Your task to perform on an android device: turn off picture-in-picture Image 0: 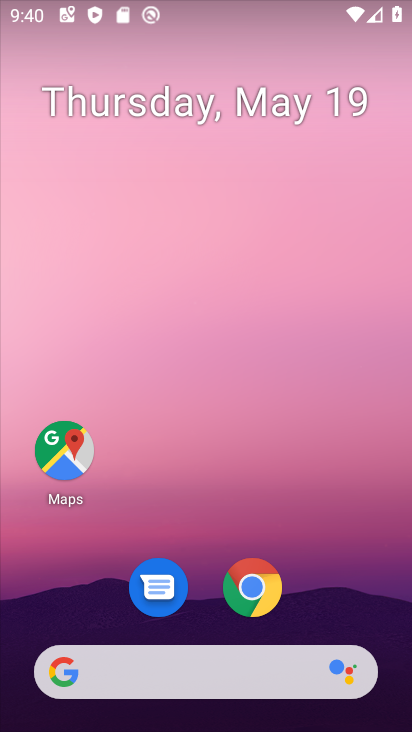
Step 0: click (255, 595)
Your task to perform on an android device: turn off picture-in-picture Image 1: 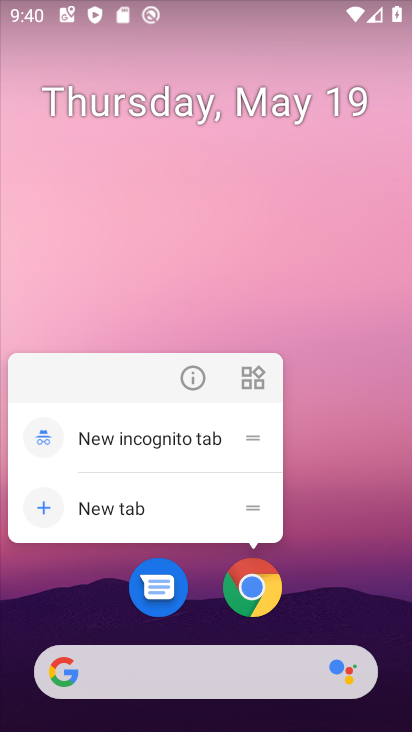
Step 1: click (193, 383)
Your task to perform on an android device: turn off picture-in-picture Image 2: 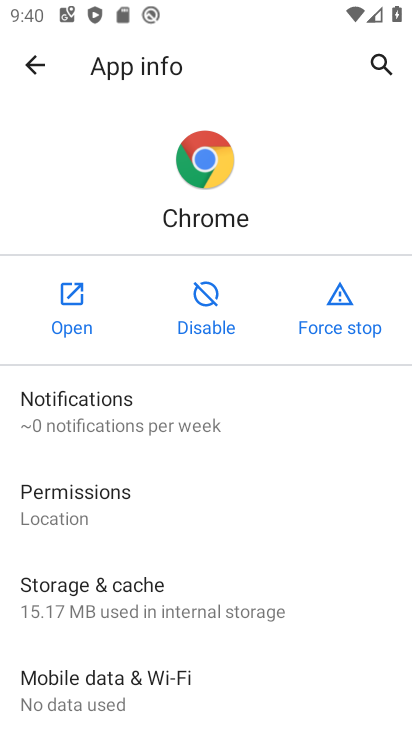
Step 2: drag from (215, 656) to (243, 0)
Your task to perform on an android device: turn off picture-in-picture Image 3: 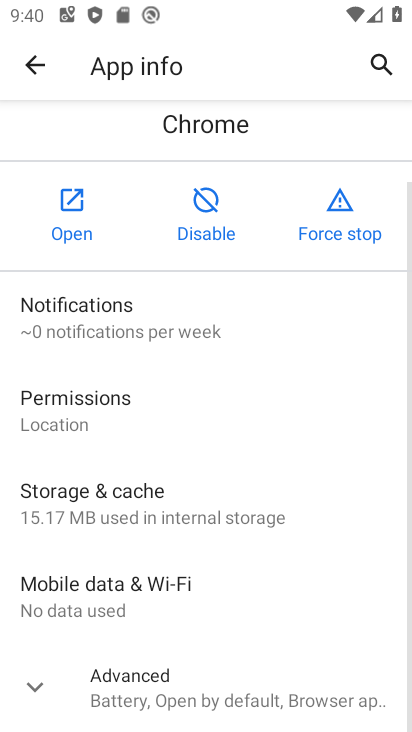
Step 3: drag from (165, 557) to (157, 218)
Your task to perform on an android device: turn off picture-in-picture Image 4: 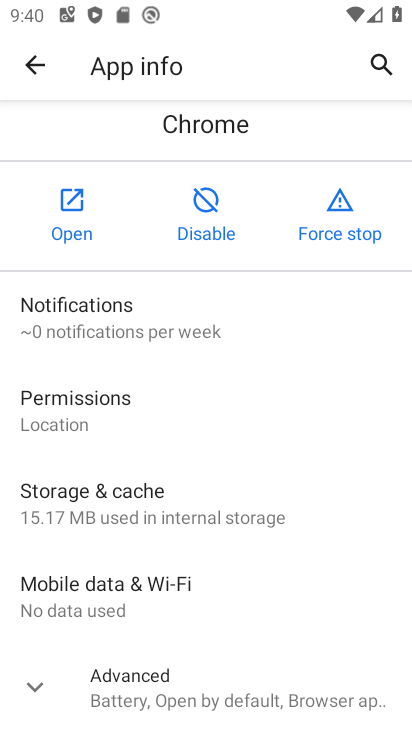
Step 4: click (152, 673)
Your task to perform on an android device: turn off picture-in-picture Image 5: 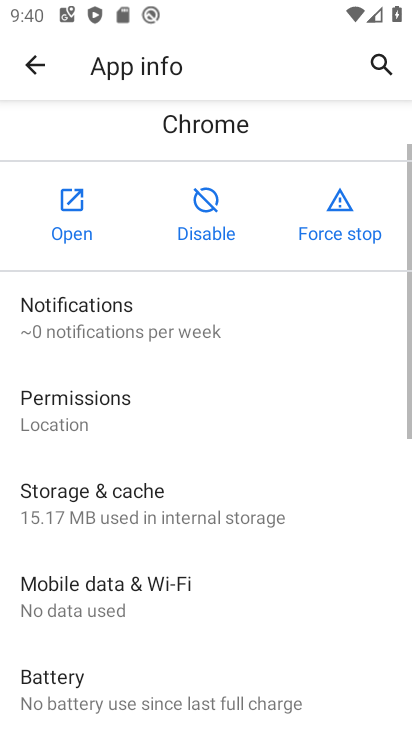
Step 5: drag from (203, 632) to (161, 169)
Your task to perform on an android device: turn off picture-in-picture Image 6: 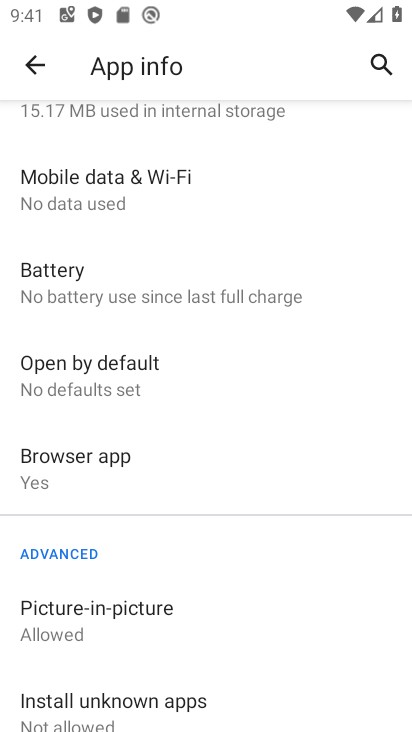
Step 6: drag from (116, 207) to (395, 688)
Your task to perform on an android device: turn off picture-in-picture Image 7: 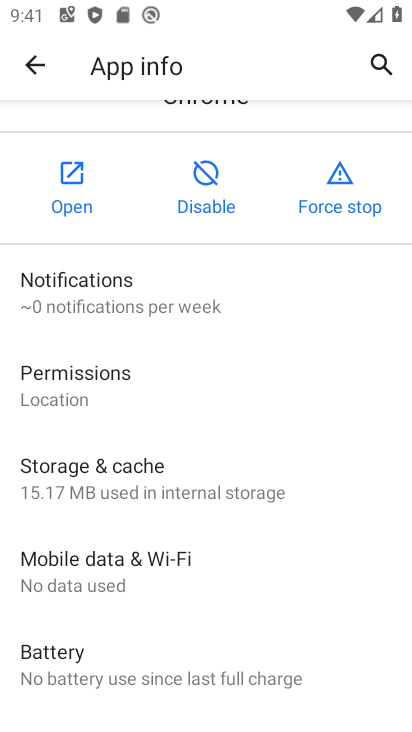
Step 7: drag from (146, 675) to (155, 187)
Your task to perform on an android device: turn off picture-in-picture Image 8: 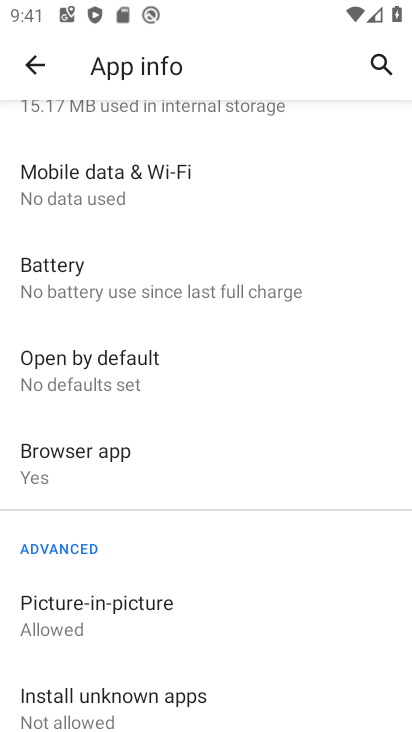
Step 8: click (200, 620)
Your task to perform on an android device: turn off picture-in-picture Image 9: 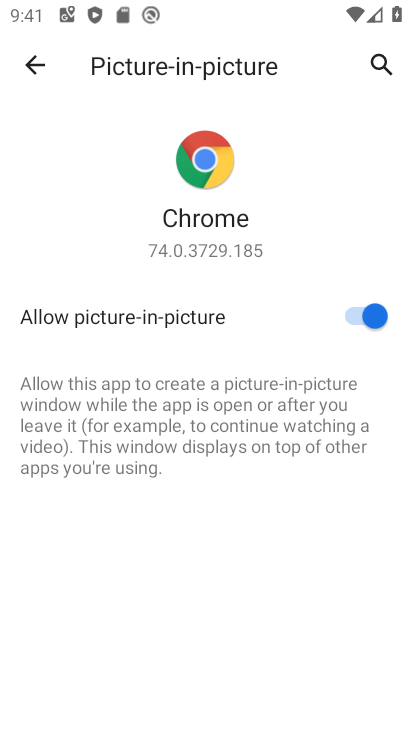
Step 9: click (366, 308)
Your task to perform on an android device: turn off picture-in-picture Image 10: 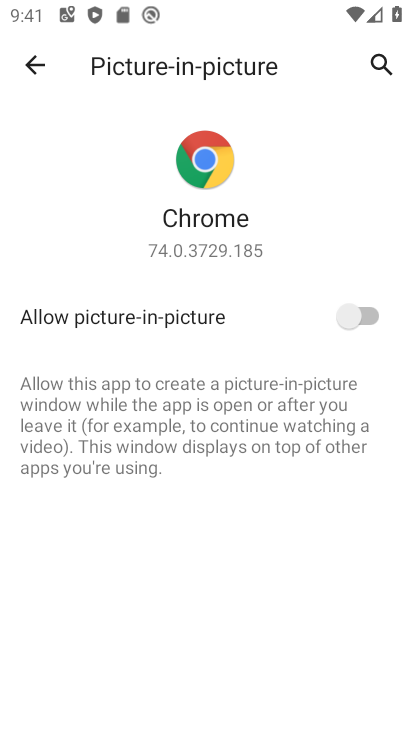
Step 10: task complete